Your task to perform on an android device: visit the assistant section in the google photos Image 0: 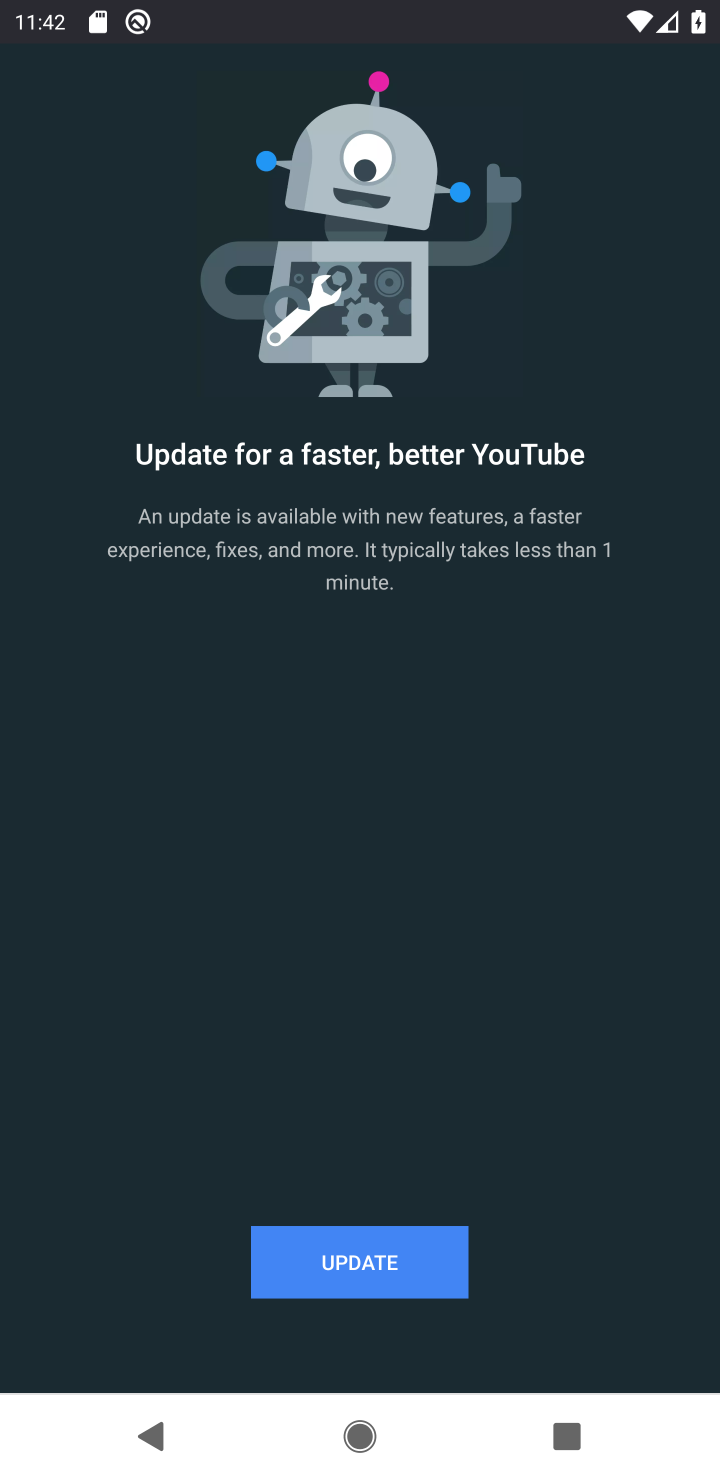
Step 0: press home button
Your task to perform on an android device: visit the assistant section in the google photos Image 1: 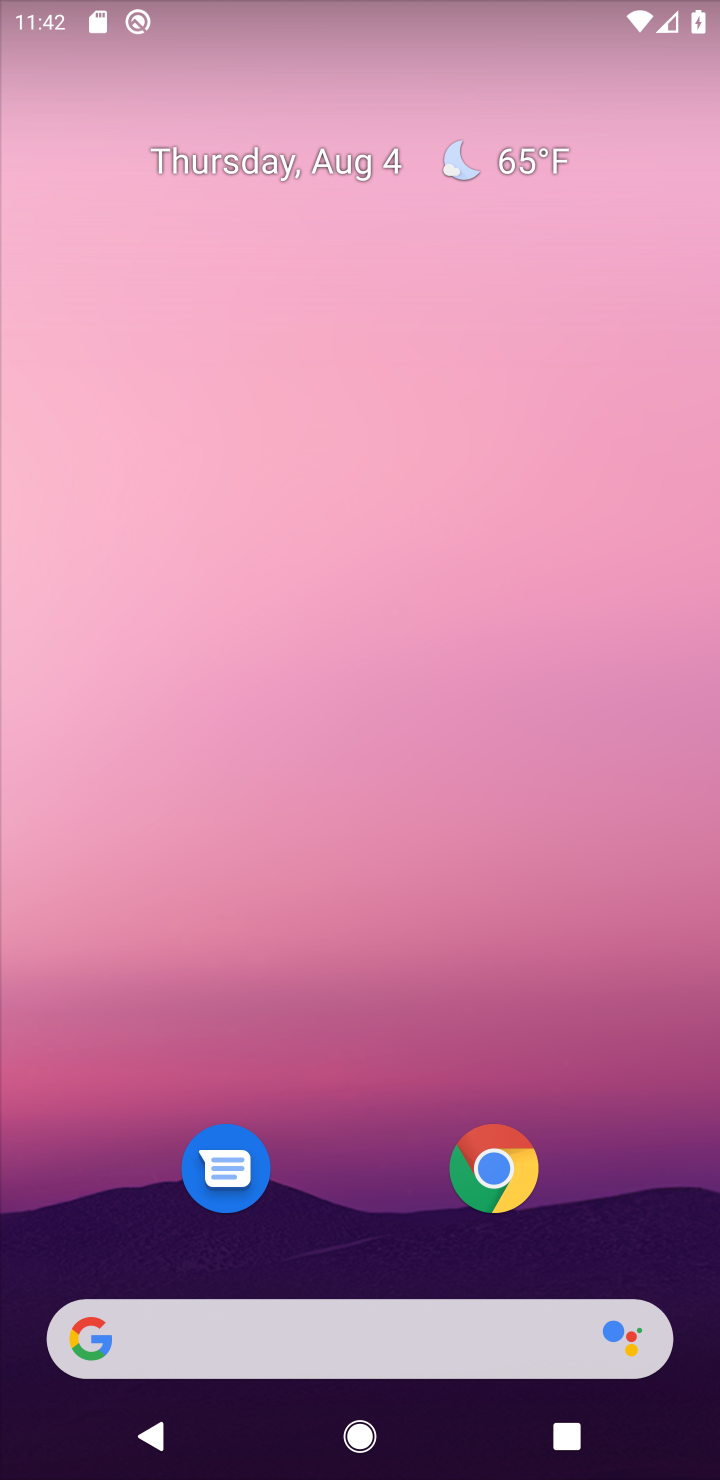
Step 1: drag from (352, 1187) to (339, 5)
Your task to perform on an android device: visit the assistant section in the google photos Image 2: 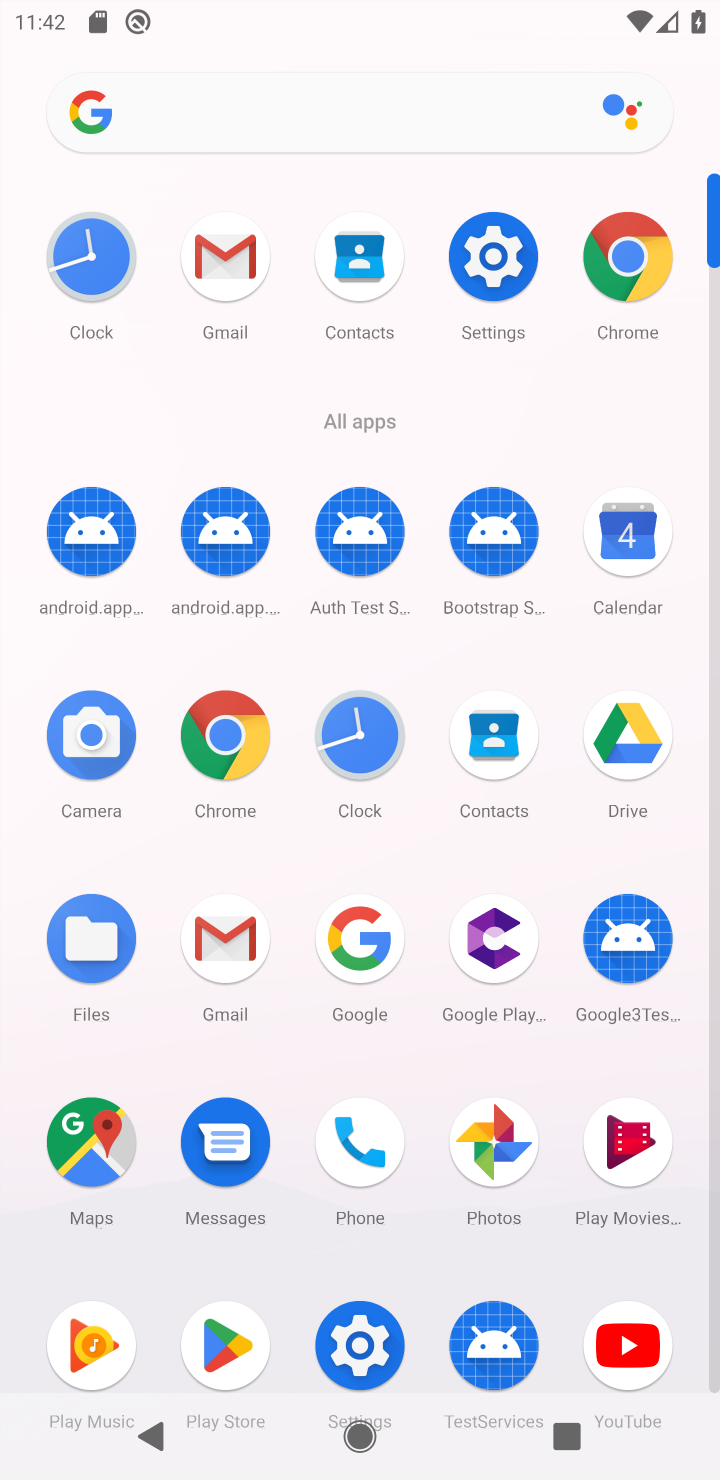
Step 2: click (500, 1141)
Your task to perform on an android device: visit the assistant section in the google photos Image 3: 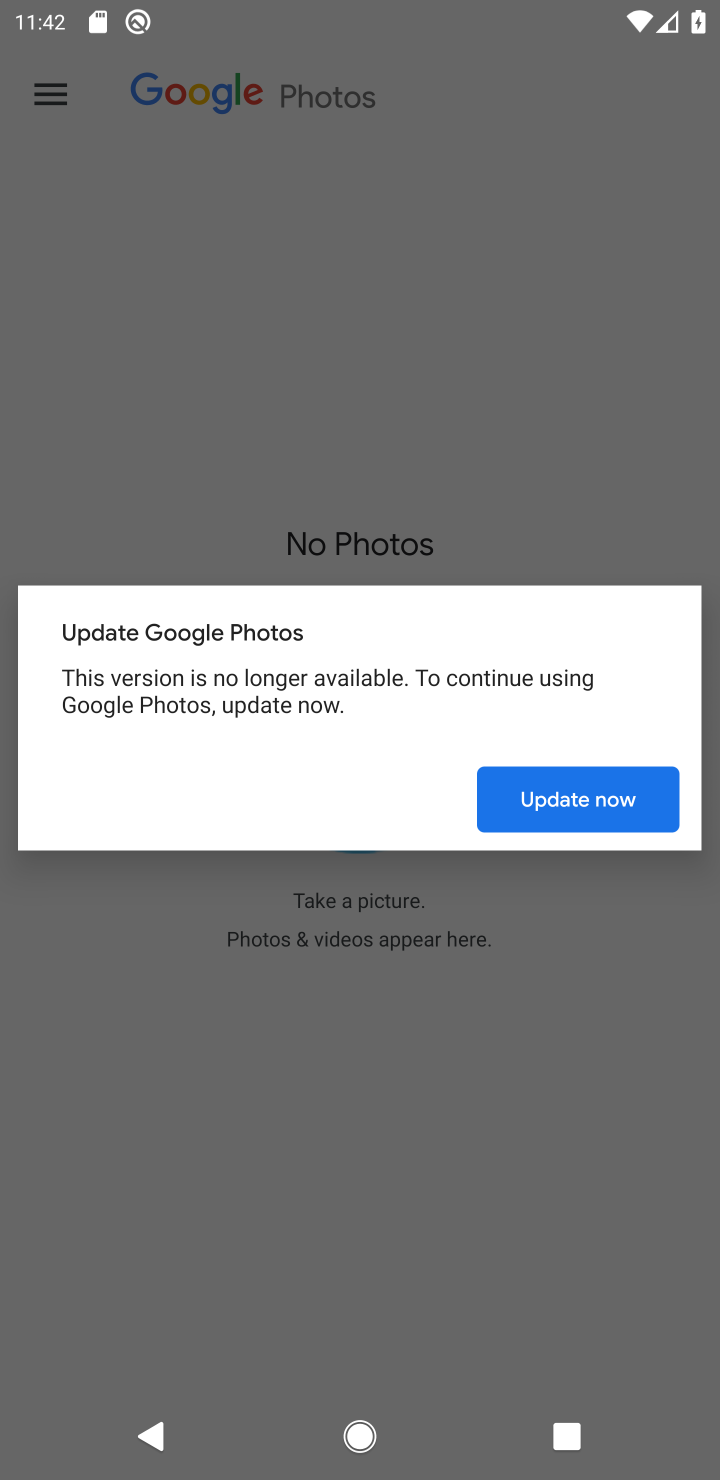
Step 3: click (617, 804)
Your task to perform on an android device: visit the assistant section in the google photos Image 4: 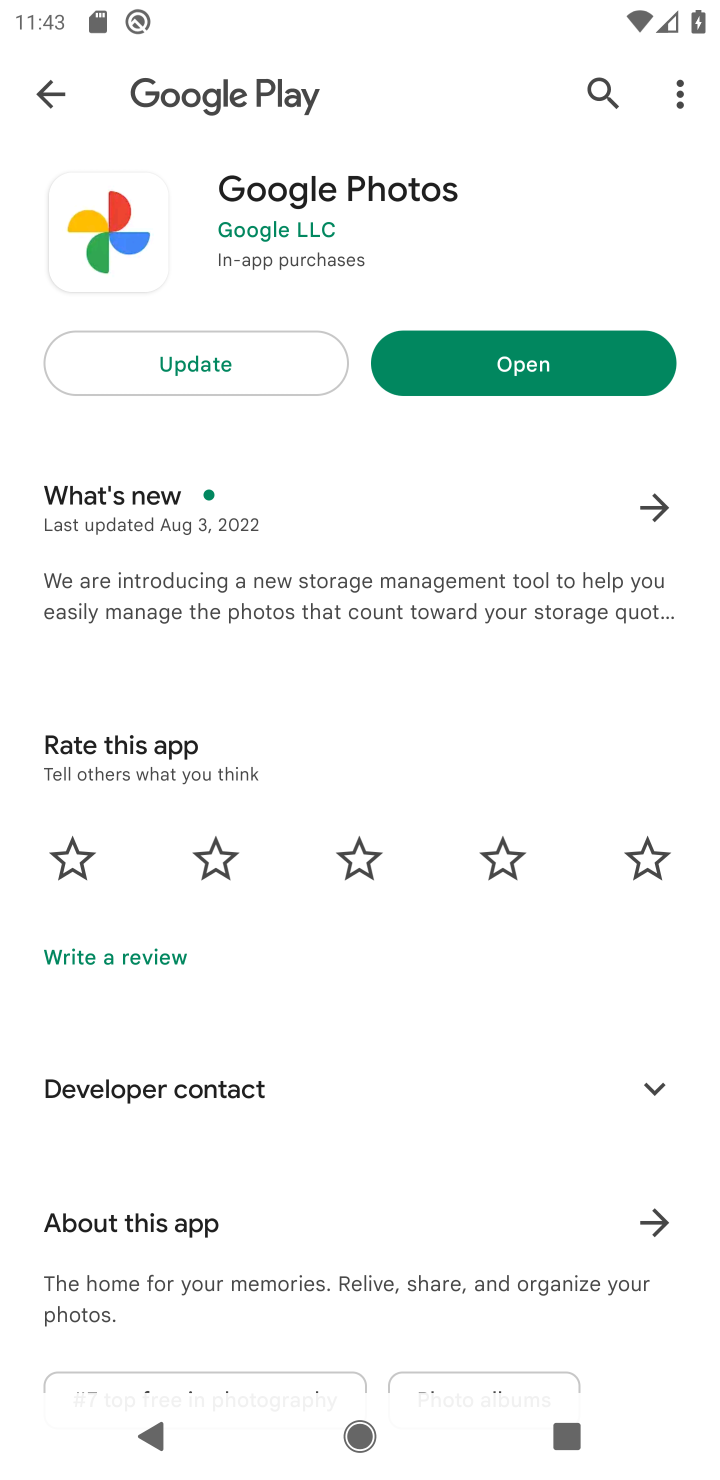
Step 4: click (522, 371)
Your task to perform on an android device: visit the assistant section in the google photos Image 5: 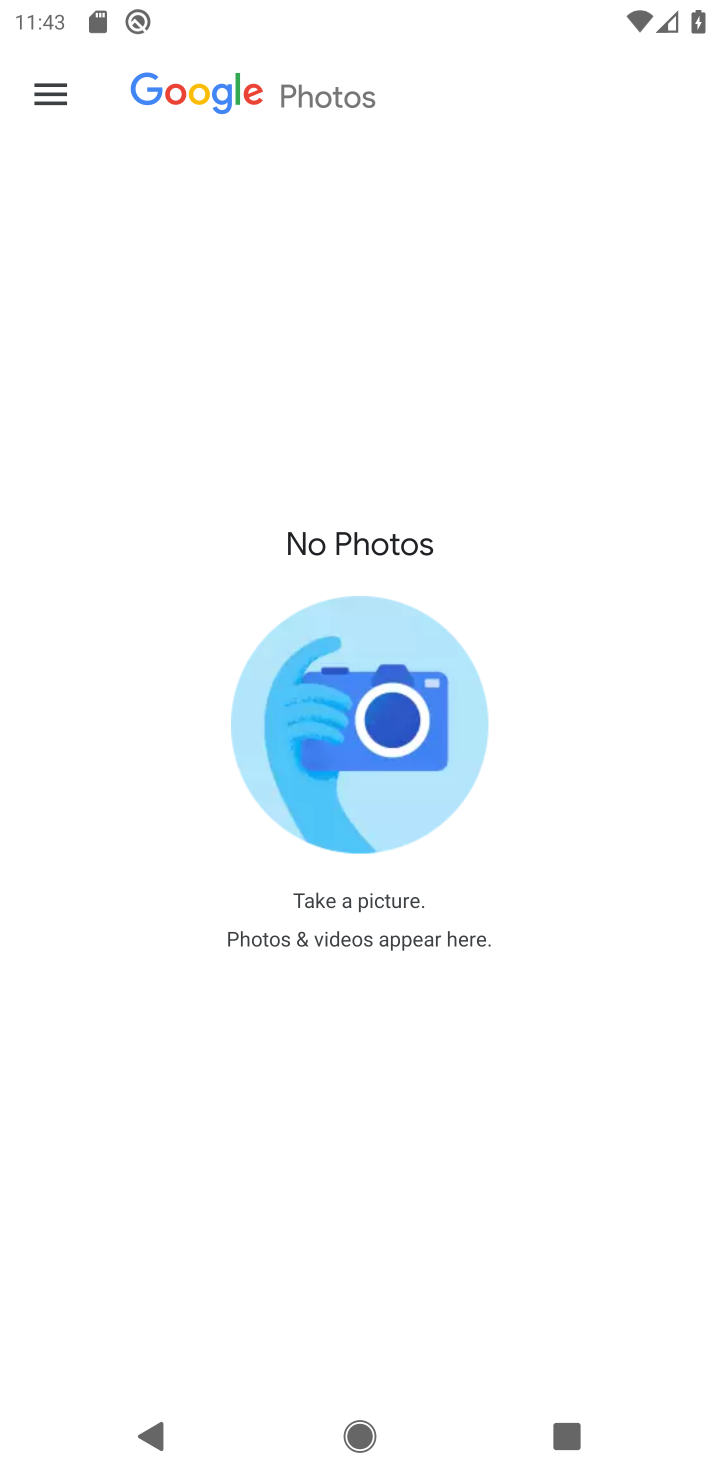
Step 5: click (41, 79)
Your task to perform on an android device: visit the assistant section in the google photos Image 6: 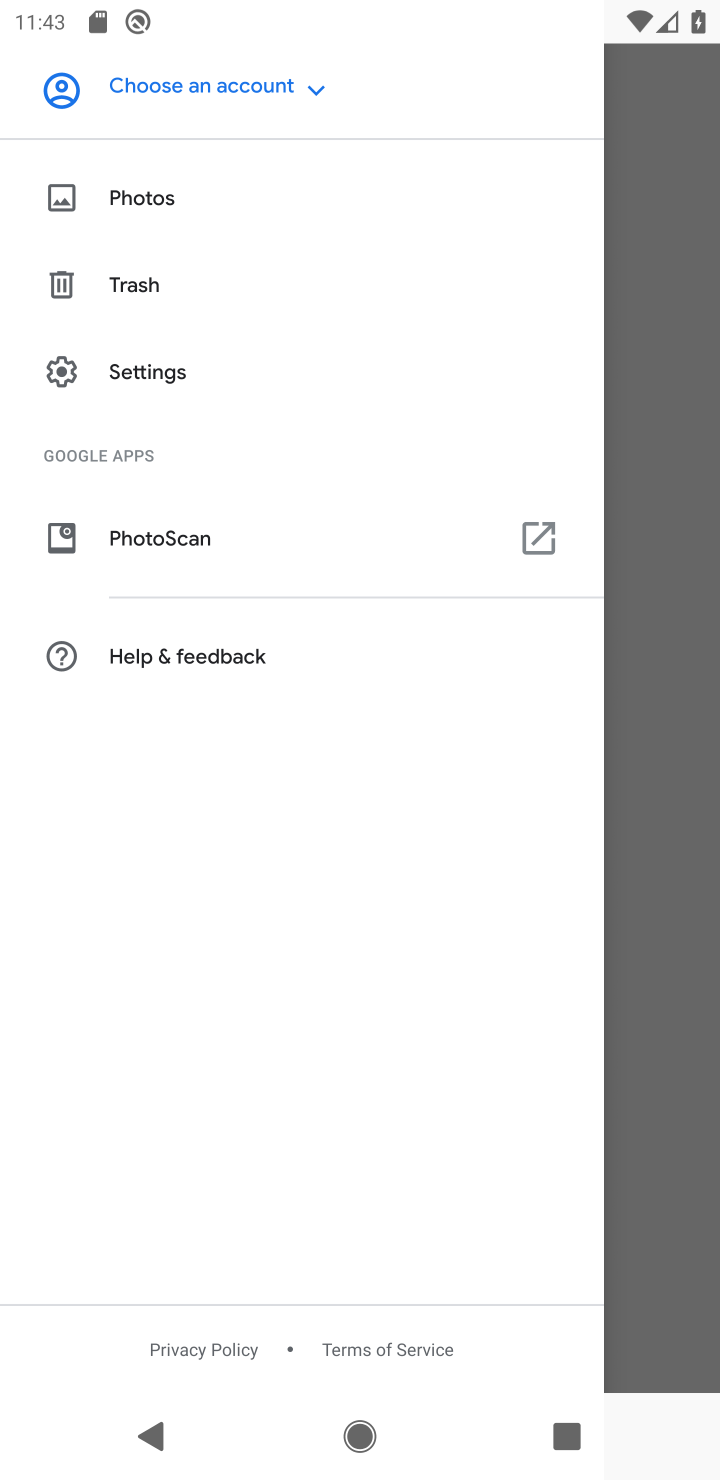
Step 6: click (315, 76)
Your task to perform on an android device: visit the assistant section in the google photos Image 7: 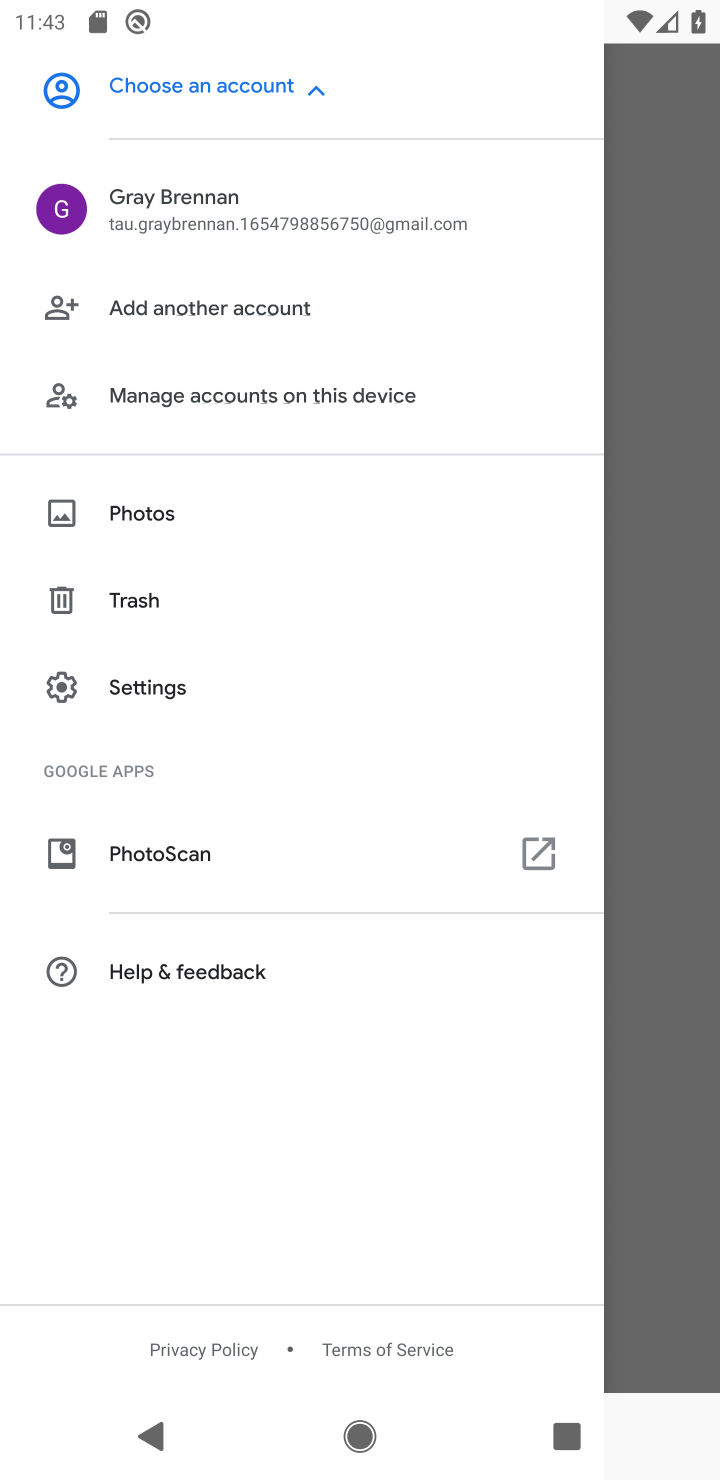
Step 7: click (283, 215)
Your task to perform on an android device: visit the assistant section in the google photos Image 8: 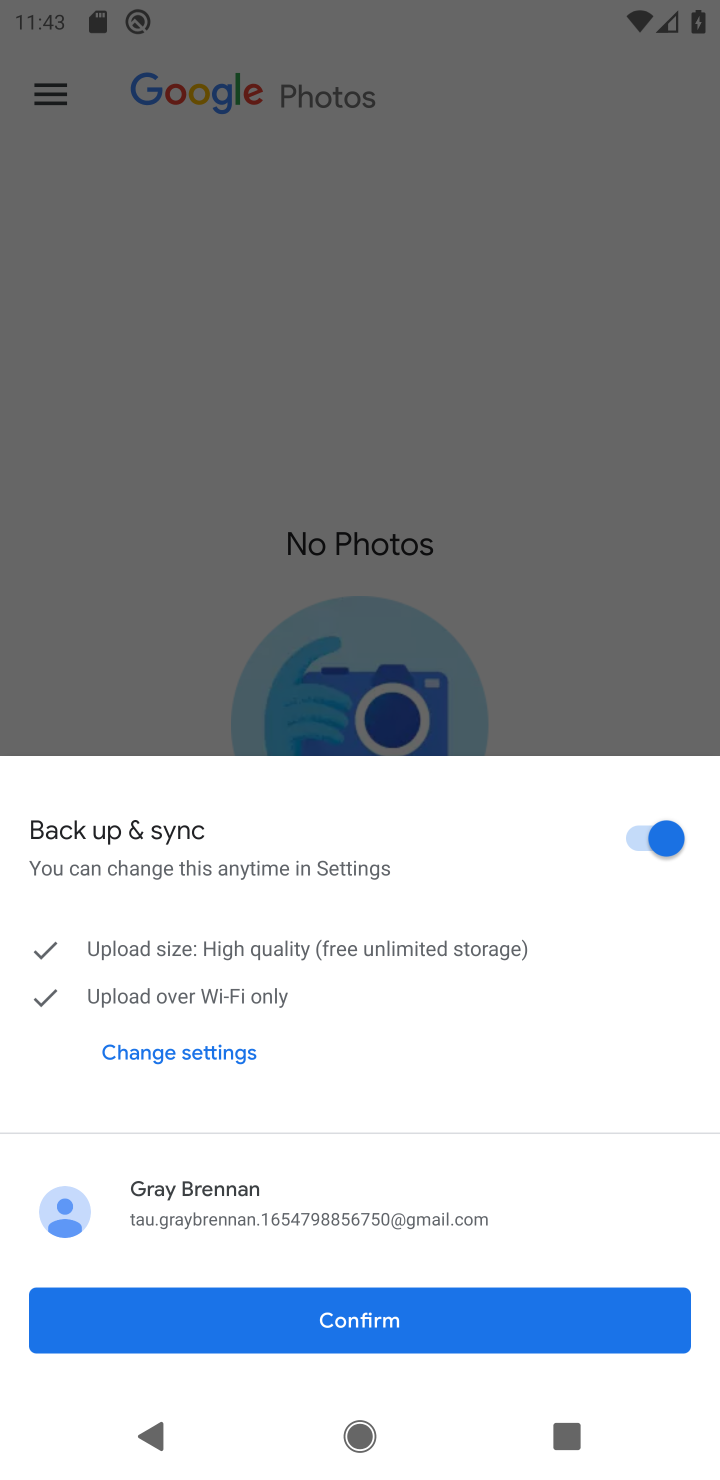
Step 8: click (387, 1321)
Your task to perform on an android device: visit the assistant section in the google photos Image 9: 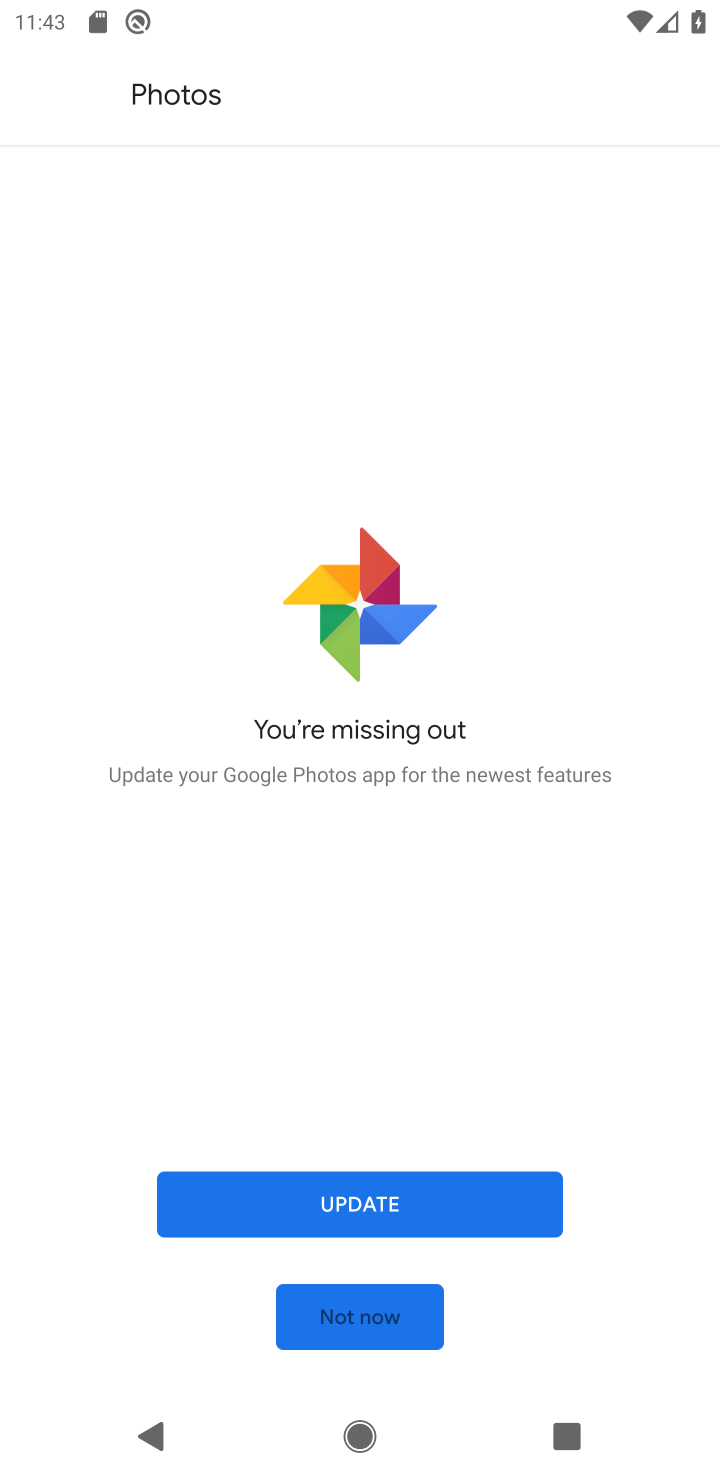
Step 9: click (393, 1315)
Your task to perform on an android device: visit the assistant section in the google photos Image 10: 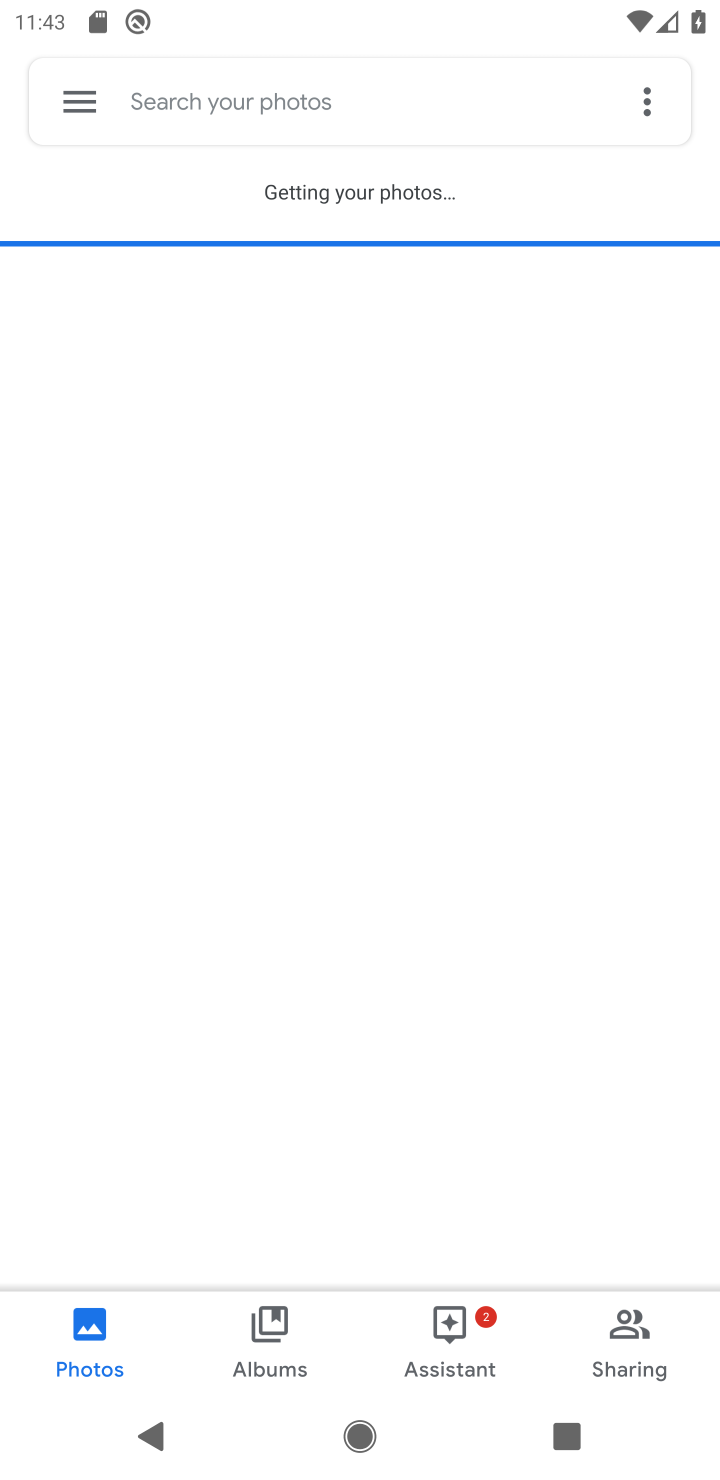
Step 10: click (471, 1346)
Your task to perform on an android device: visit the assistant section in the google photos Image 11: 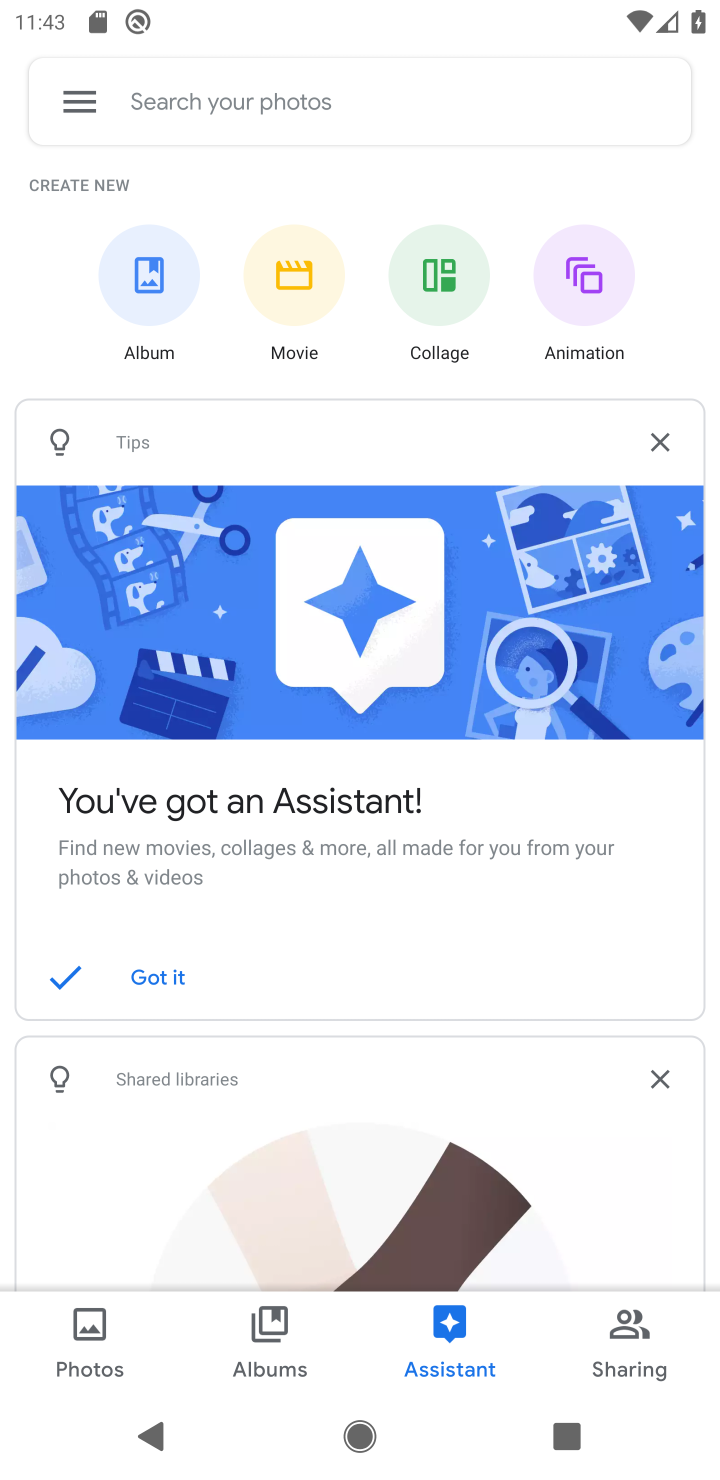
Step 11: task complete